Your task to perform on an android device: find photos in the google photos app Image 0: 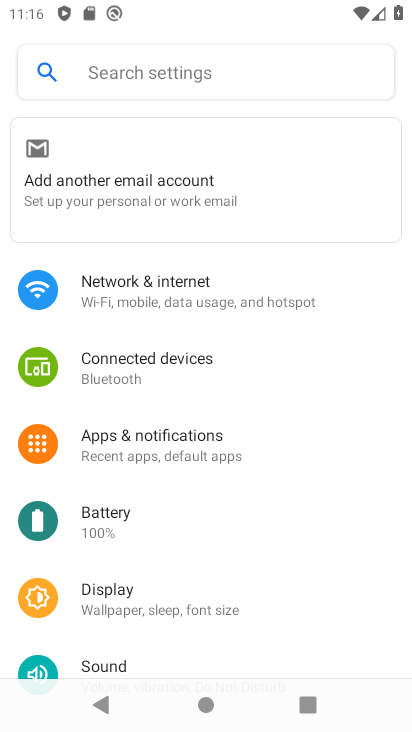
Step 0: press home button
Your task to perform on an android device: find photos in the google photos app Image 1: 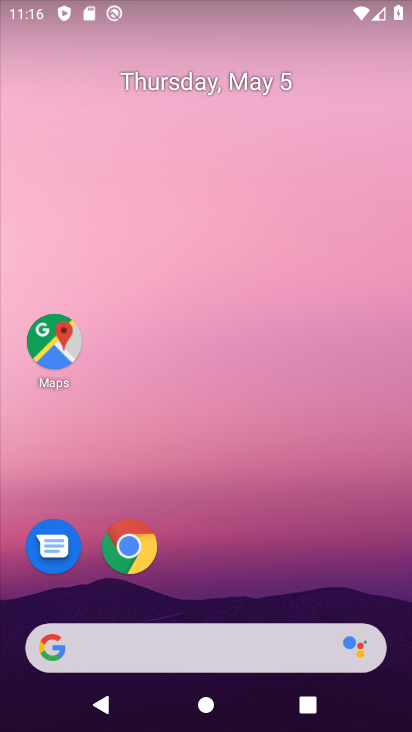
Step 1: drag from (10, 638) to (211, 247)
Your task to perform on an android device: find photos in the google photos app Image 2: 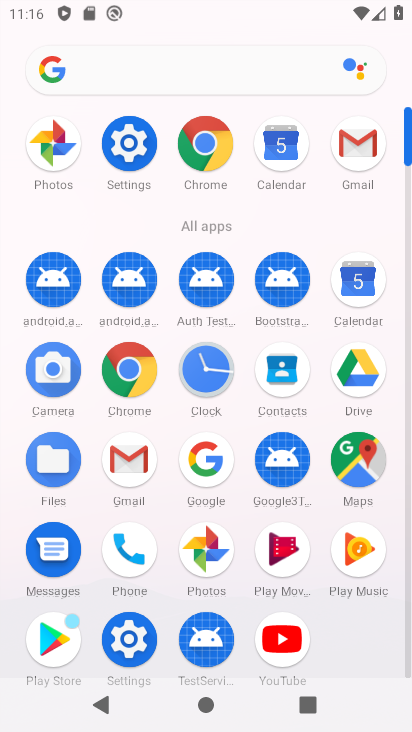
Step 2: click (205, 543)
Your task to perform on an android device: find photos in the google photos app Image 3: 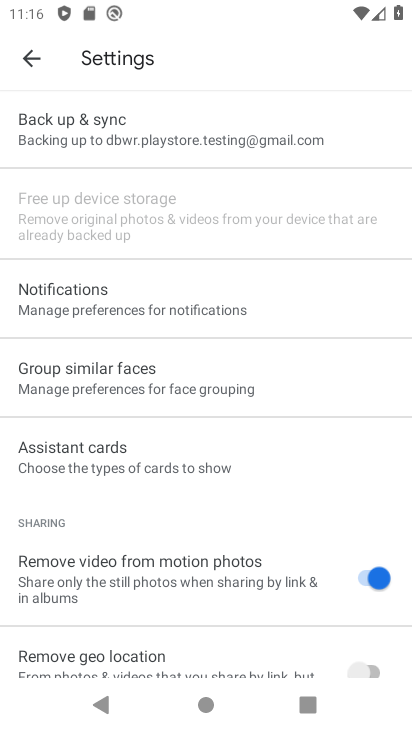
Step 3: task complete